Your task to perform on an android device: Go to ESPN.com Image 0: 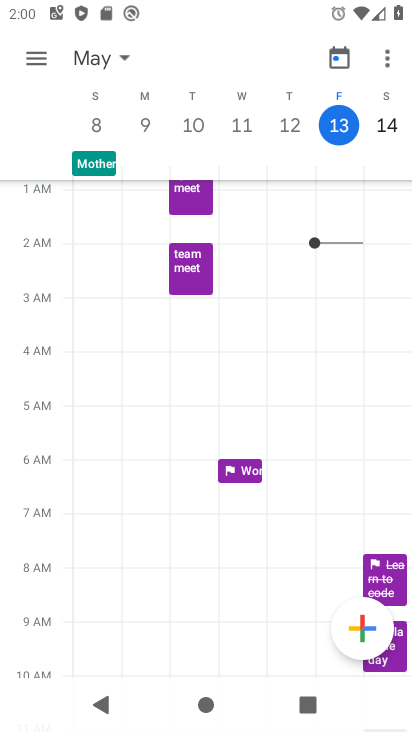
Step 0: press home button
Your task to perform on an android device: Go to ESPN.com Image 1: 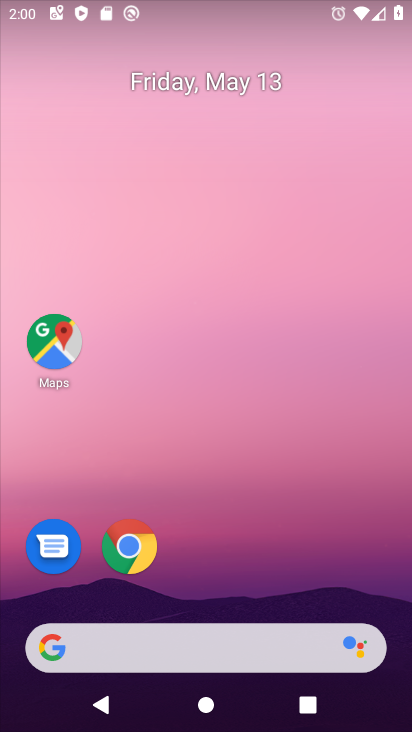
Step 1: click (139, 547)
Your task to perform on an android device: Go to ESPN.com Image 2: 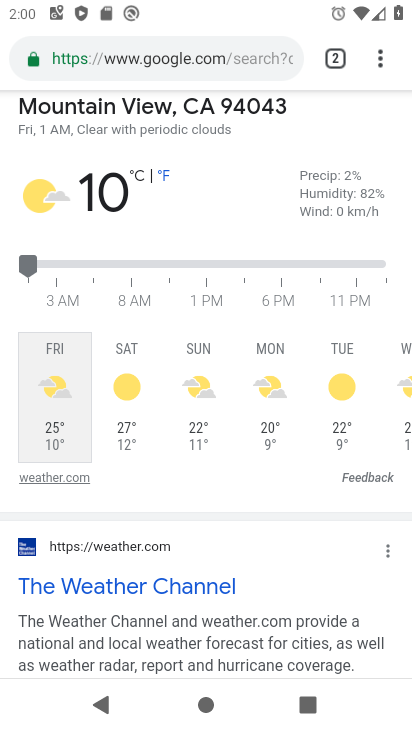
Step 2: click (236, 51)
Your task to perform on an android device: Go to ESPN.com Image 3: 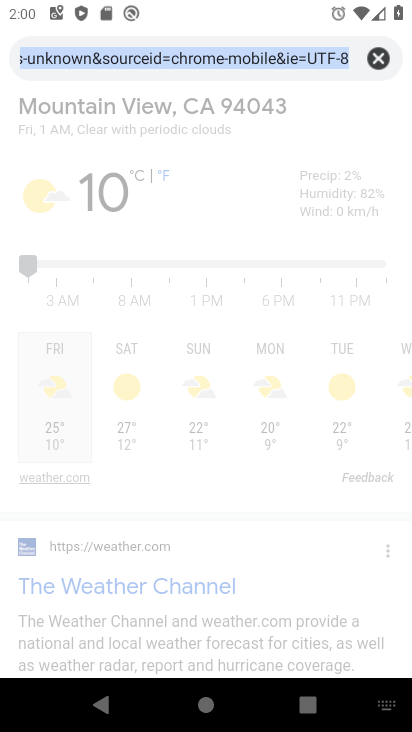
Step 3: type "espn.com"
Your task to perform on an android device: Go to ESPN.com Image 4: 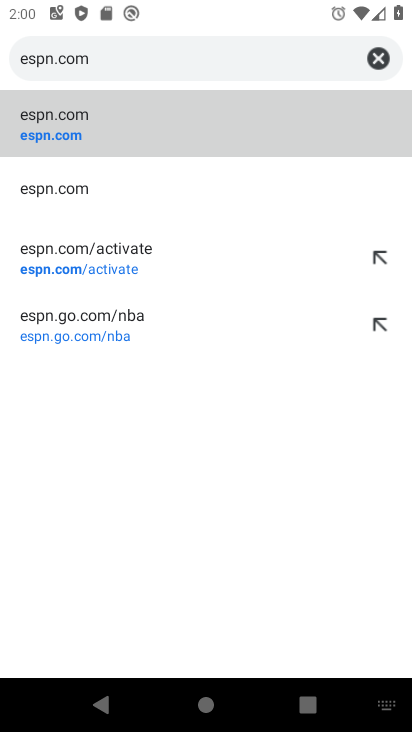
Step 4: click (46, 130)
Your task to perform on an android device: Go to ESPN.com Image 5: 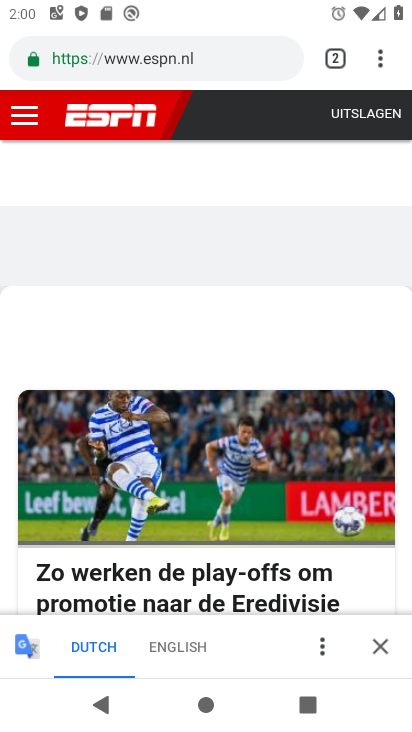
Step 5: task complete